Your task to perform on an android device: Open Amazon Image 0: 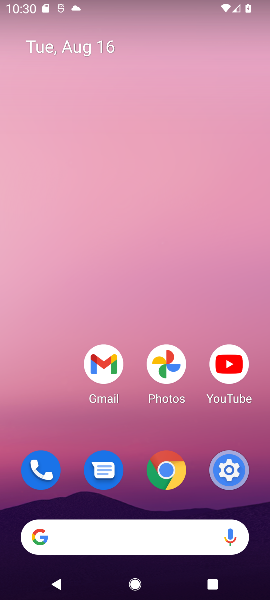
Step 0: click (172, 464)
Your task to perform on an android device: Open Amazon Image 1: 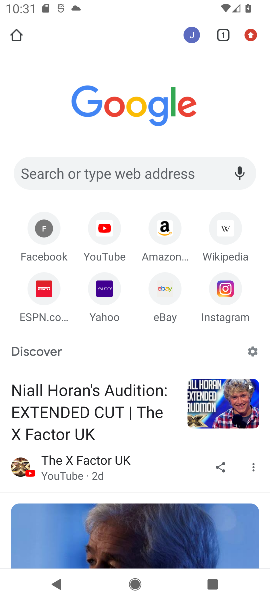
Step 1: click (166, 228)
Your task to perform on an android device: Open Amazon Image 2: 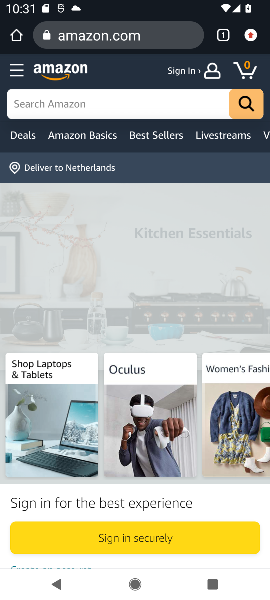
Step 2: task complete